Your task to perform on an android device: turn on javascript in the chrome app Image 0: 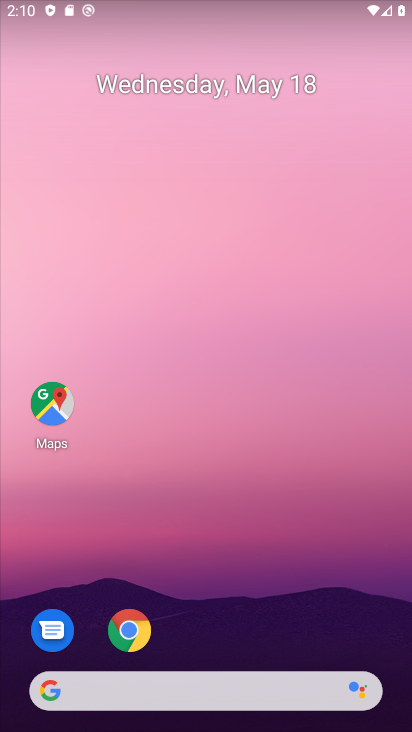
Step 0: click (131, 631)
Your task to perform on an android device: turn on javascript in the chrome app Image 1: 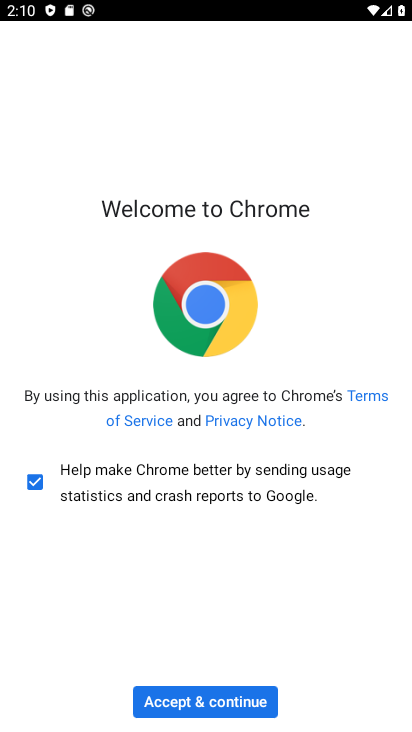
Step 1: click (200, 690)
Your task to perform on an android device: turn on javascript in the chrome app Image 2: 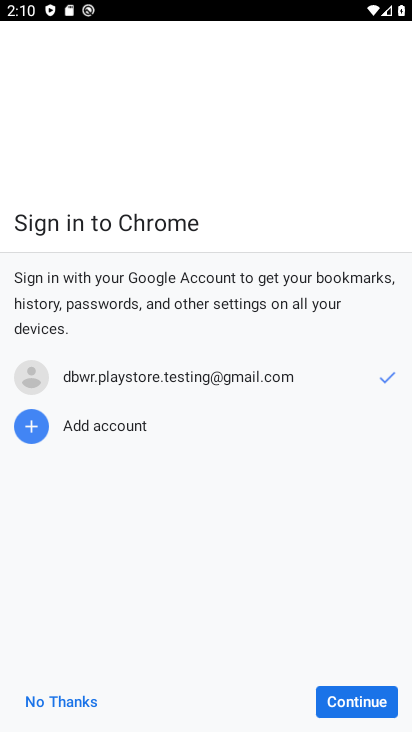
Step 2: click (352, 701)
Your task to perform on an android device: turn on javascript in the chrome app Image 3: 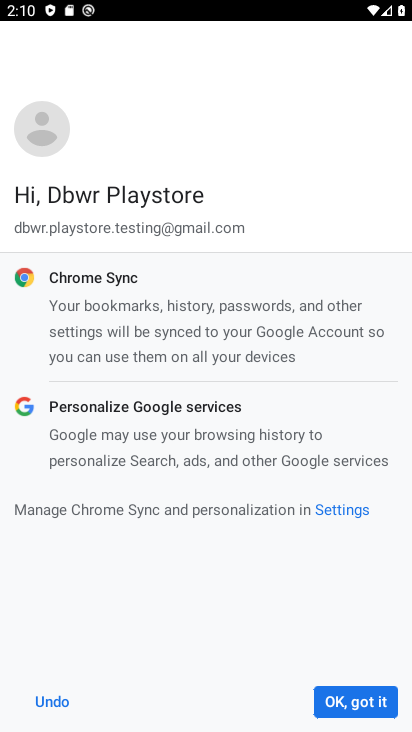
Step 3: click (352, 701)
Your task to perform on an android device: turn on javascript in the chrome app Image 4: 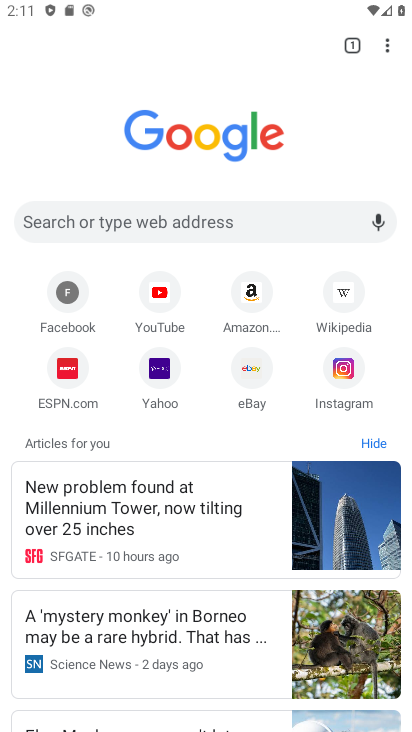
Step 4: click (387, 37)
Your task to perform on an android device: turn on javascript in the chrome app Image 5: 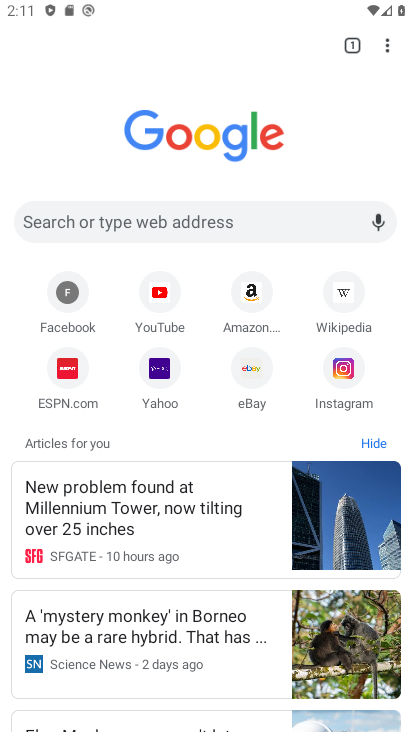
Step 5: click (386, 44)
Your task to perform on an android device: turn on javascript in the chrome app Image 6: 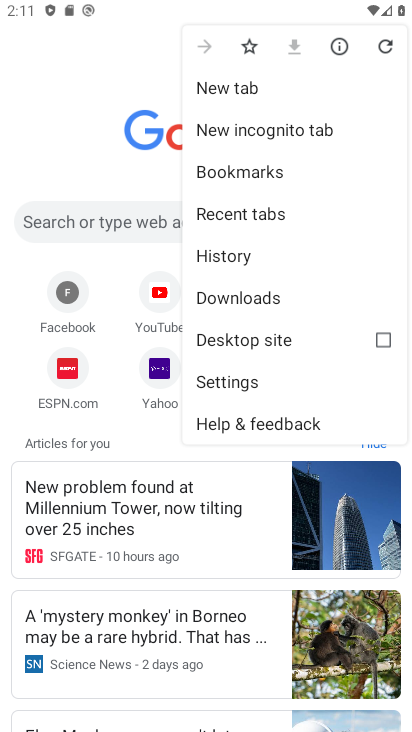
Step 6: click (272, 382)
Your task to perform on an android device: turn on javascript in the chrome app Image 7: 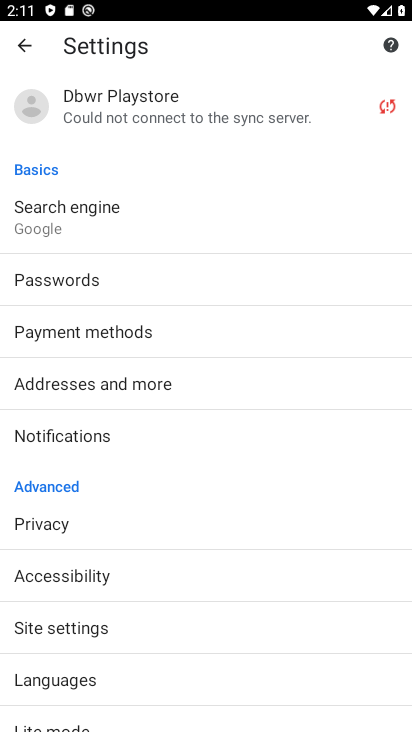
Step 7: click (125, 622)
Your task to perform on an android device: turn on javascript in the chrome app Image 8: 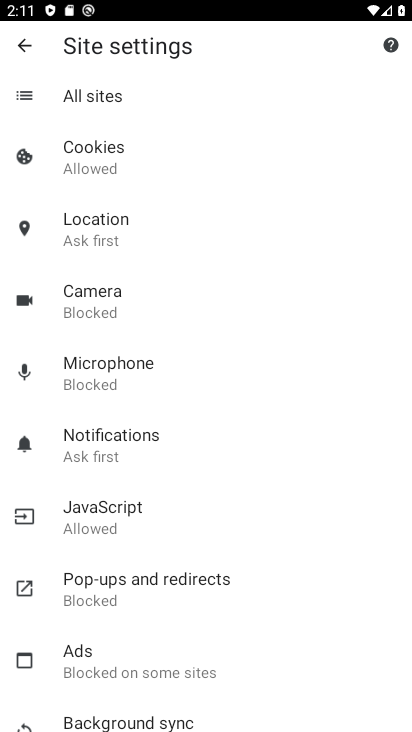
Step 8: click (159, 515)
Your task to perform on an android device: turn on javascript in the chrome app Image 9: 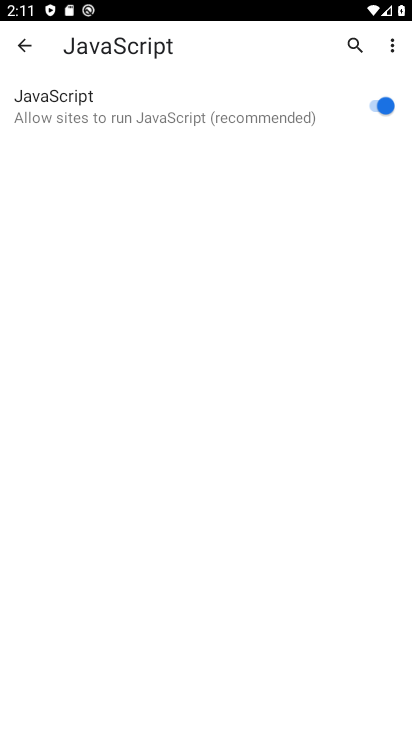
Step 9: task complete